Your task to perform on an android device: turn off notifications settings in the gmail app Image 0: 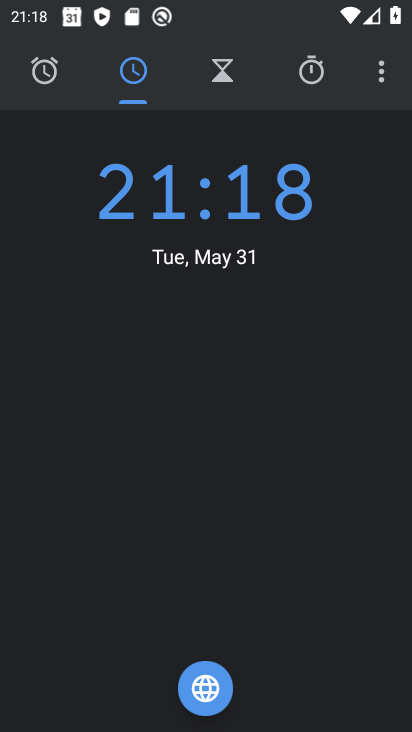
Step 0: press home button
Your task to perform on an android device: turn off notifications settings in the gmail app Image 1: 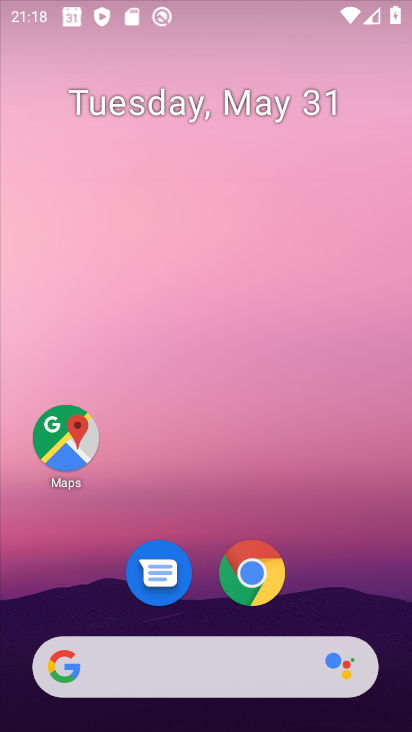
Step 1: drag from (321, 515) to (244, 53)
Your task to perform on an android device: turn off notifications settings in the gmail app Image 2: 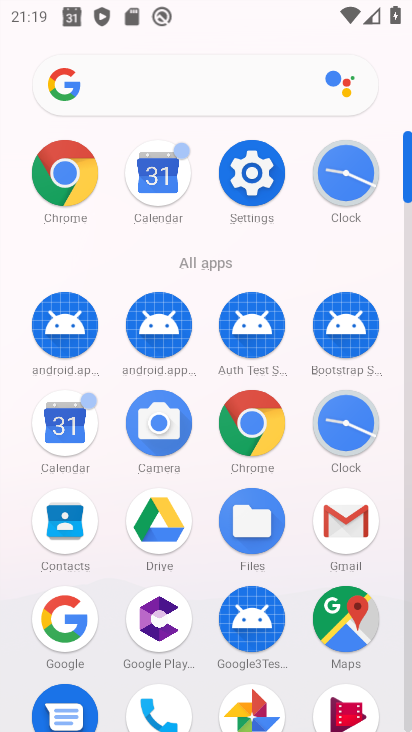
Step 2: click (339, 528)
Your task to perform on an android device: turn off notifications settings in the gmail app Image 3: 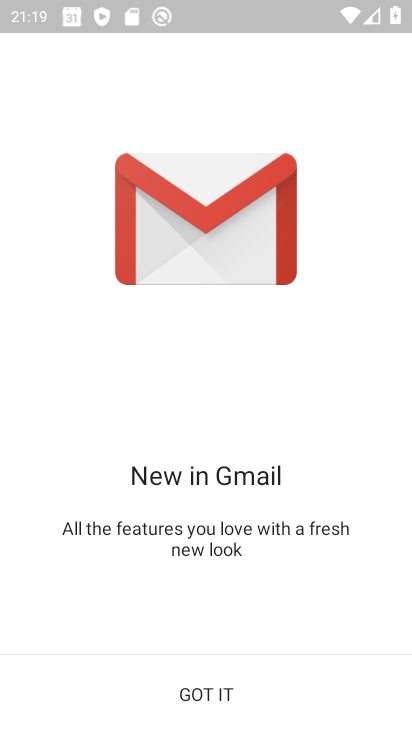
Step 3: click (271, 692)
Your task to perform on an android device: turn off notifications settings in the gmail app Image 4: 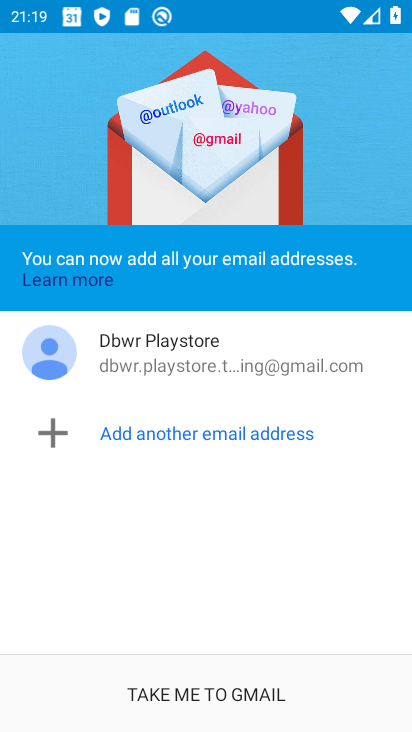
Step 4: click (267, 682)
Your task to perform on an android device: turn off notifications settings in the gmail app Image 5: 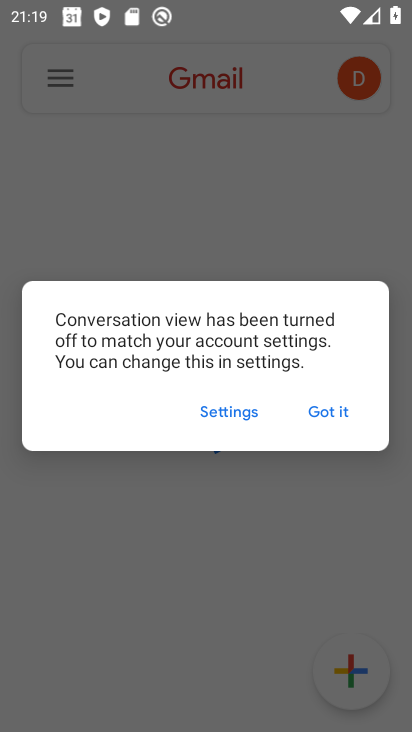
Step 5: click (336, 405)
Your task to perform on an android device: turn off notifications settings in the gmail app Image 6: 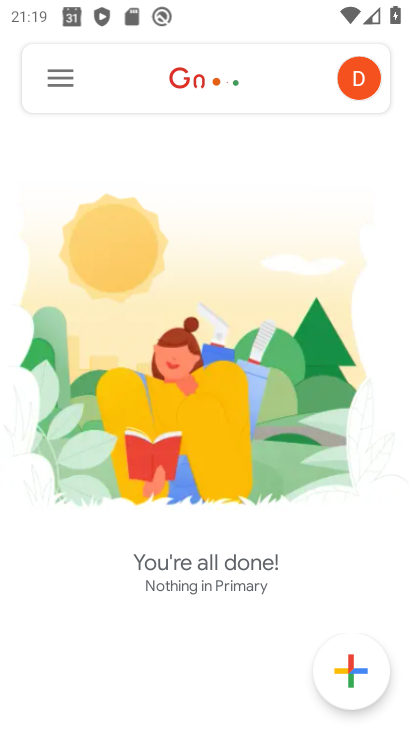
Step 6: click (69, 66)
Your task to perform on an android device: turn off notifications settings in the gmail app Image 7: 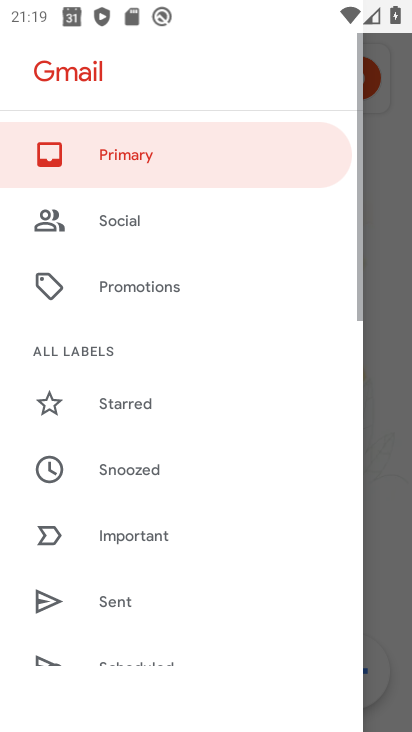
Step 7: drag from (171, 540) to (244, 45)
Your task to perform on an android device: turn off notifications settings in the gmail app Image 8: 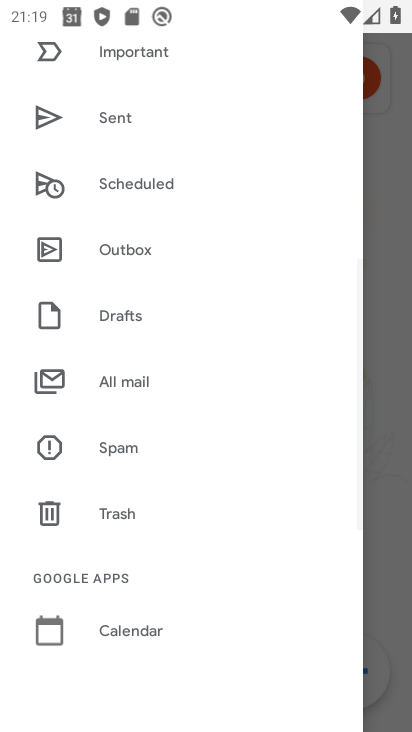
Step 8: drag from (166, 555) to (221, 120)
Your task to perform on an android device: turn off notifications settings in the gmail app Image 9: 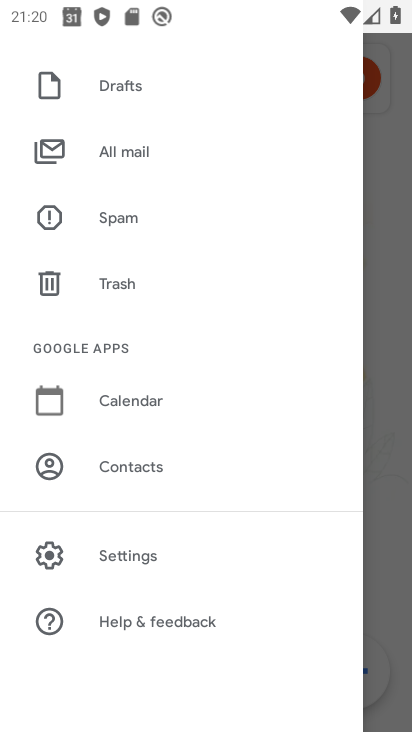
Step 9: click (128, 561)
Your task to perform on an android device: turn off notifications settings in the gmail app Image 10: 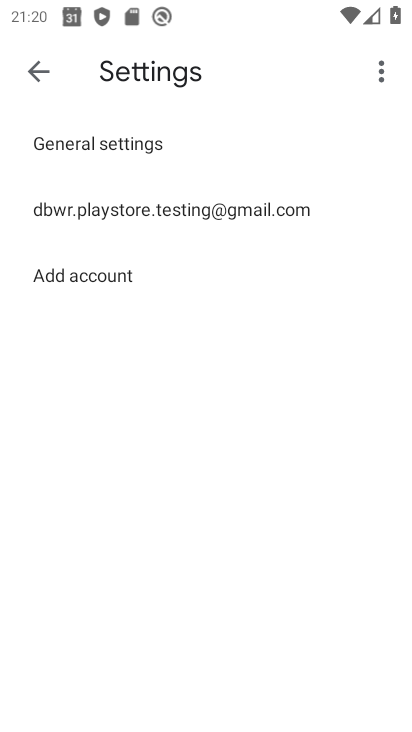
Step 10: click (174, 206)
Your task to perform on an android device: turn off notifications settings in the gmail app Image 11: 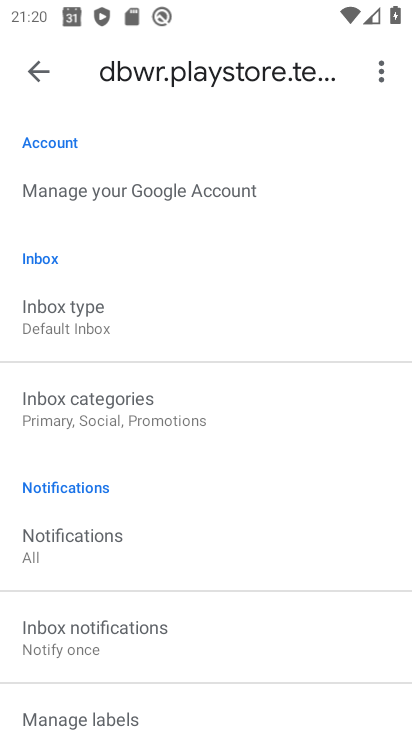
Step 11: drag from (153, 595) to (214, 174)
Your task to perform on an android device: turn off notifications settings in the gmail app Image 12: 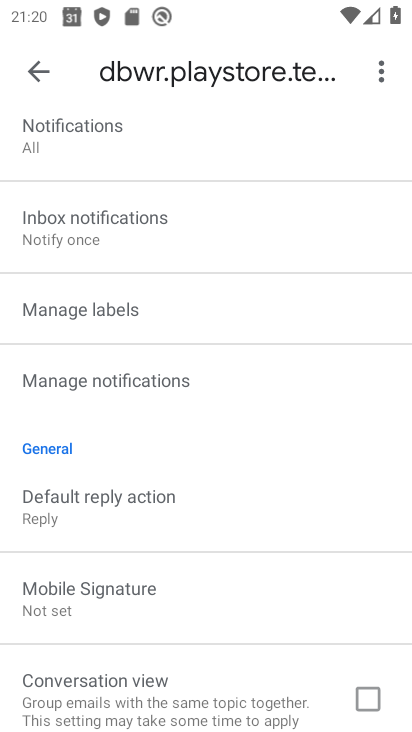
Step 12: click (130, 380)
Your task to perform on an android device: turn off notifications settings in the gmail app Image 13: 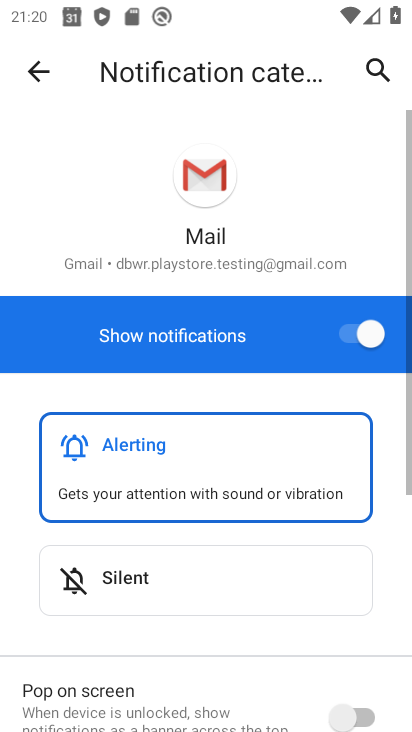
Step 13: click (359, 337)
Your task to perform on an android device: turn off notifications settings in the gmail app Image 14: 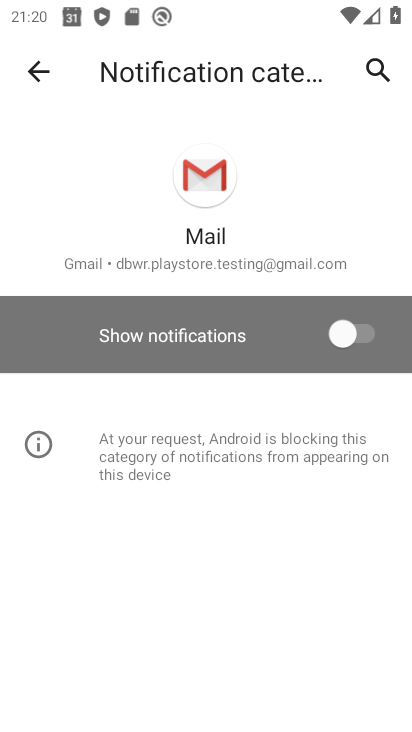
Step 14: task complete